Your task to perform on an android device: turn off picture-in-picture Image 0: 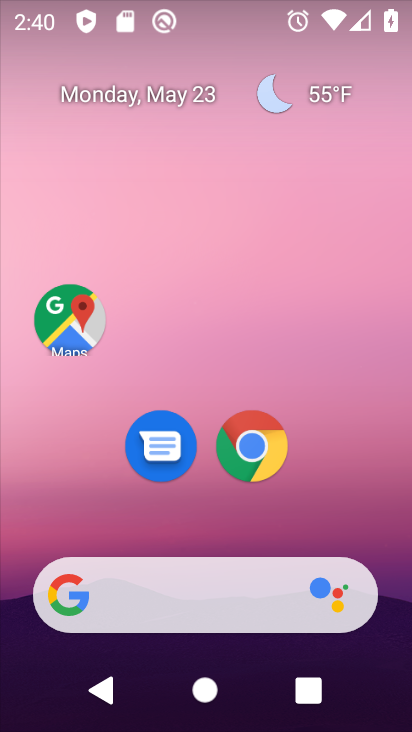
Step 0: click (246, 439)
Your task to perform on an android device: turn off picture-in-picture Image 1: 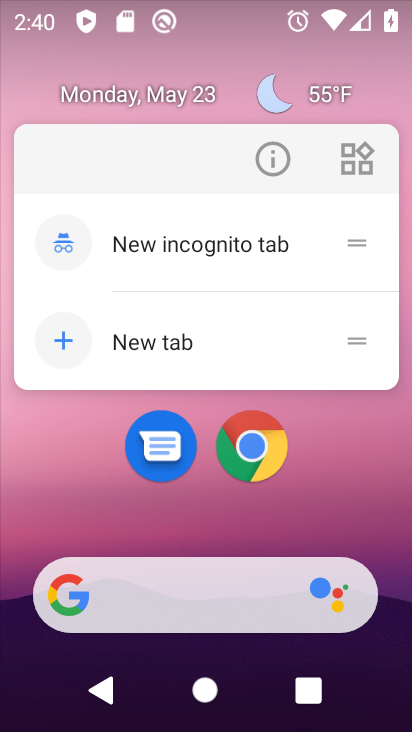
Step 1: click (281, 161)
Your task to perform on an android device: turn off picture-in-picture Image 2: 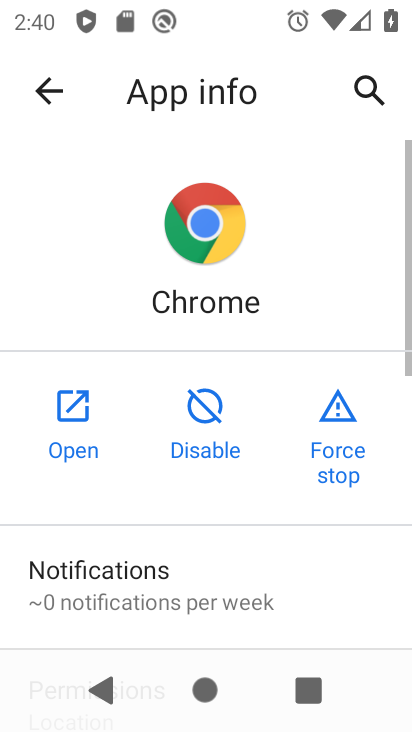
Step 2: drag from (195, 586) to (224, 211)
Your task to perform on an android device: turn off picture-in-picture Image 3: 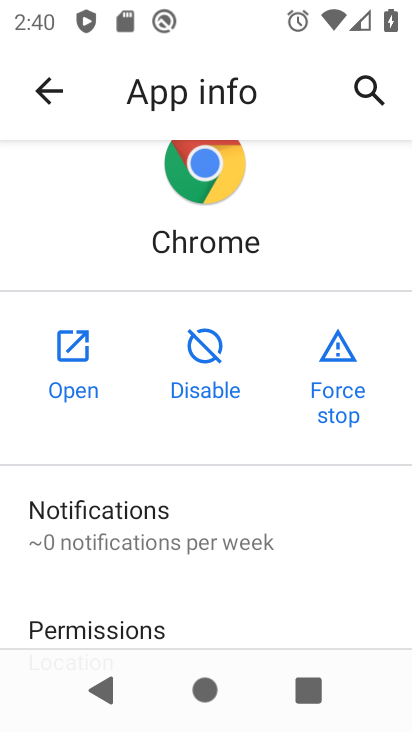
Step 3: drag from (237, 522) to (214, 209)
Your task to perform on an android device: turn off picture-in-picture Image 4: 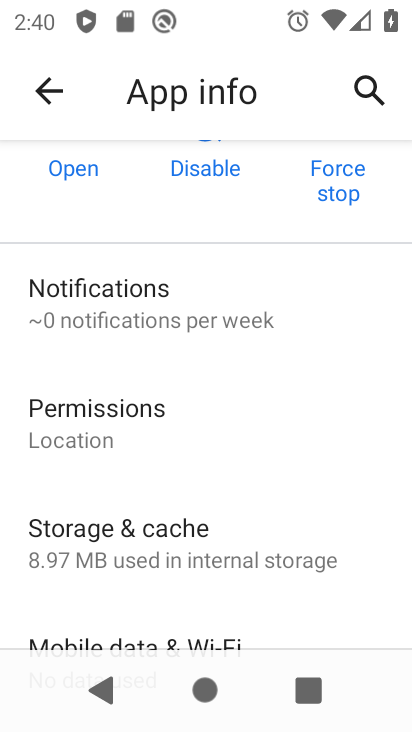
Step 4: drag from (208, 506) to (235, 187)
Your task to perform on an android device: turn off picture-in-picture Image 5: 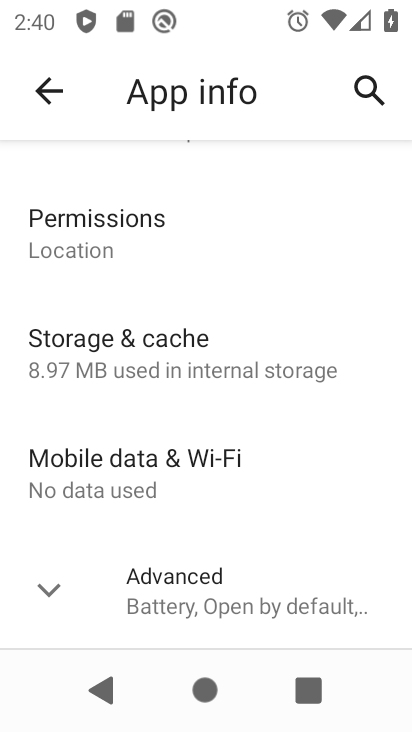
Step 5: click (223, 591)
Your task to perform on an android device: turn off picture-in-picture Image 6: 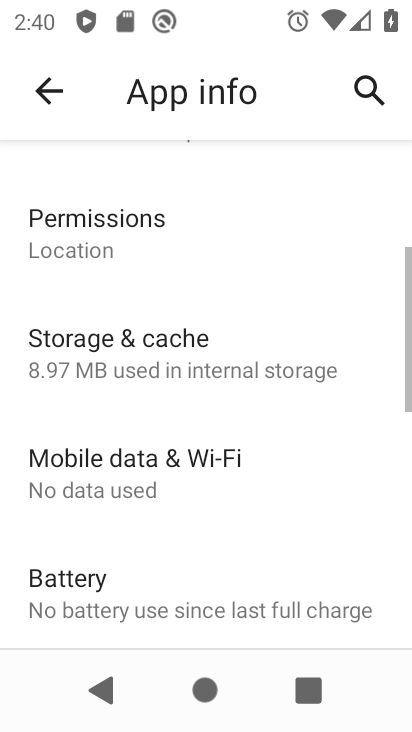
Step 6: drag from (213, 596) to (209, 239)
Your task to perform on an android device: turn off picture-in-picture Image 7: 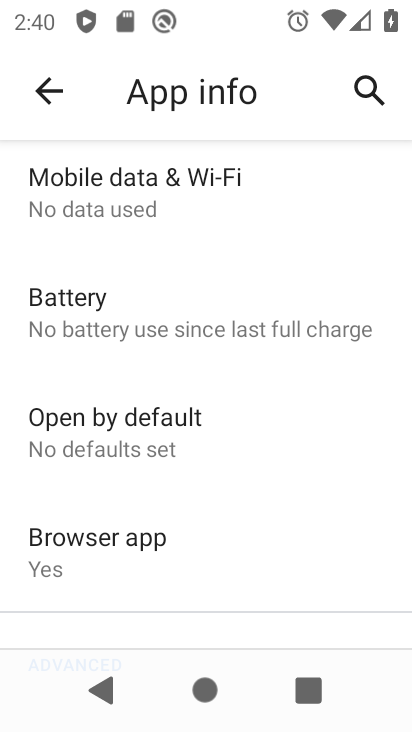
Step 7: drag from (192, 537) to (220, 279)
Your task to perform on an android device: turn off picture-in-picture Image 8: 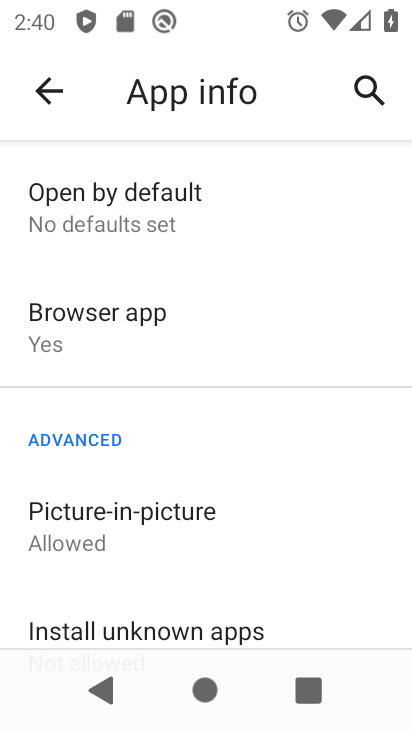
Step 8: click (148, 546)
Your task to perform on an android device: turn off picture-in-picture Image 9: 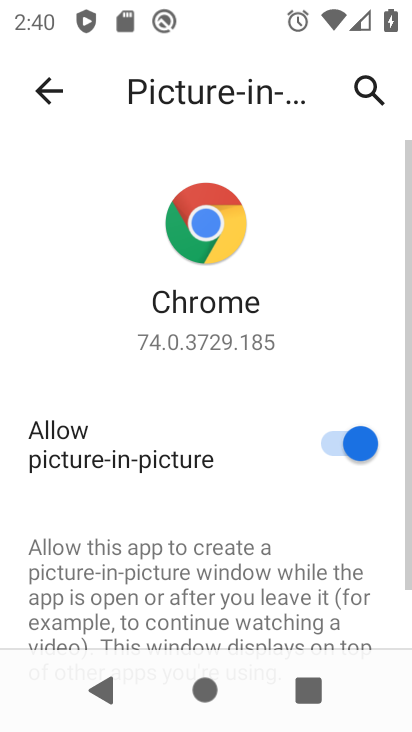
Step 9: click (336, 433)
Your task to perform on an android device: turn off picture-in-picture Image 10: 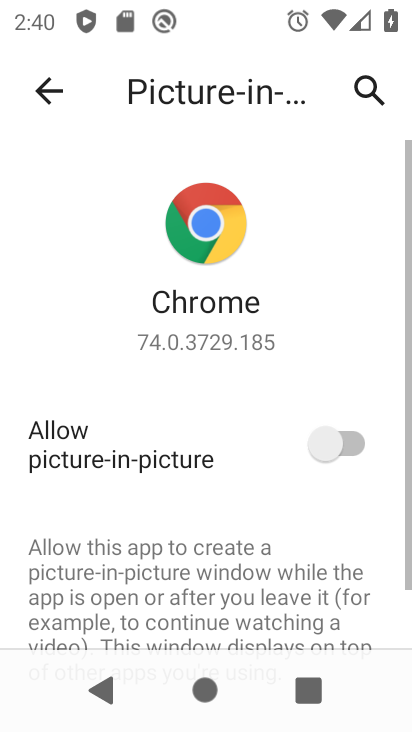
Step 10: task complete